Your task to perform on an android device: Install the Twitter app Image 0: 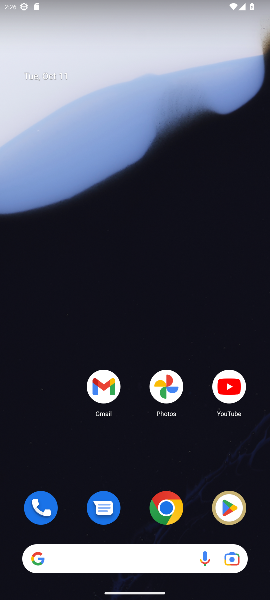
Step 0: click (226, 506)
Your task to perform on an android device: Install the Twitter app Image 1: 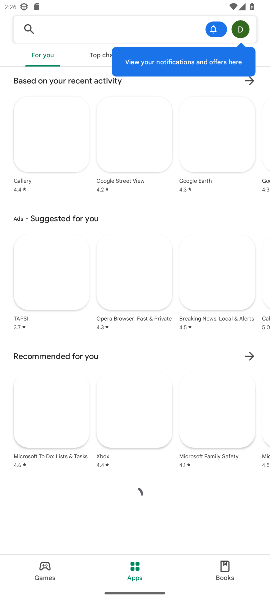
Step 1: click (97, 29)
Your task to perform on an android device: Install the Twitter app Image 2: 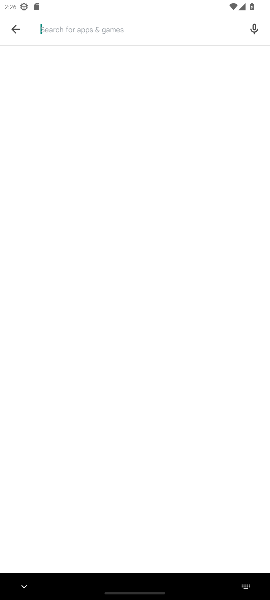
Step 2: click (97, 29)
Your task to perform on an android device: Install the Twitter app Image 3: 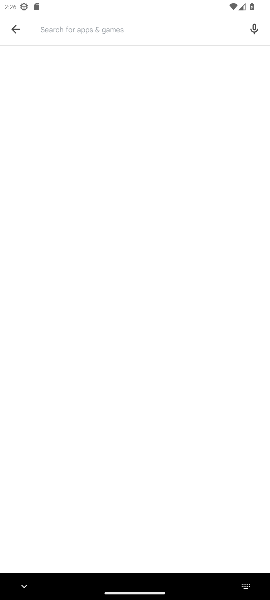
Step 3: type "twitter"
Your task to perform on an android device: Install the Twitter app Image 4: 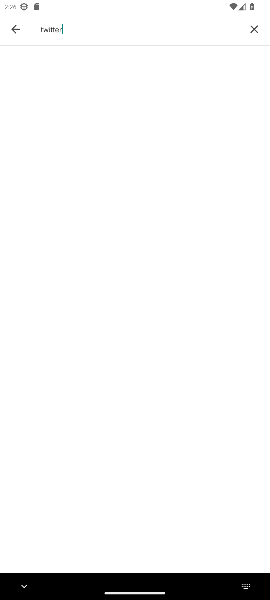
Step 4: type ""
Your task to perform on an android device: Install the Twitter app Image 5: 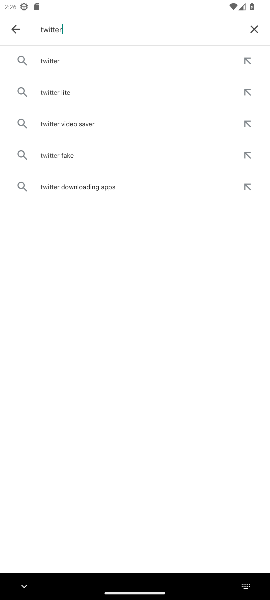
Step 5: click (31, 65)
Your task to perform on an android device: Install the Twitter app Image 6: 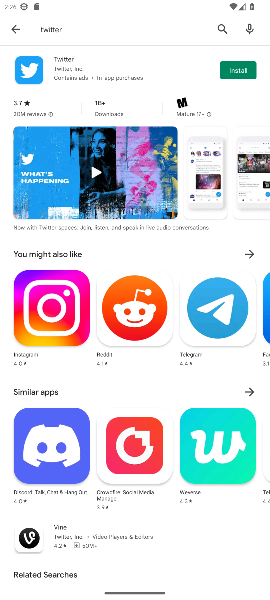
Step 6: click (235, 68)
Your task to perform on an android device: Install the Twitter app Image 7: 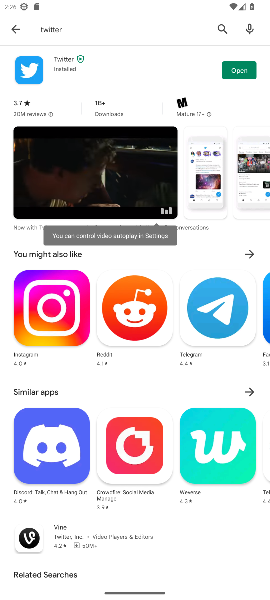
Step 7: task complete